Your task to perform on an android device: Go to calendar. Show me events next week Image 0: 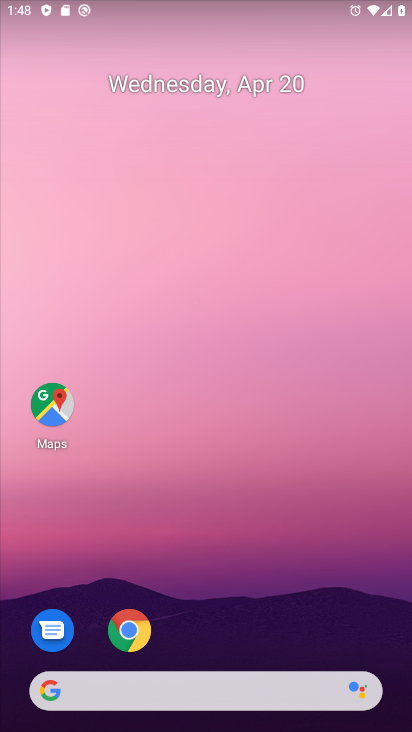
Step 0: drag from (184, 638) to (109, 86)
Your task to perform on an android device: Go to calendar. Show me events next week Image 1: 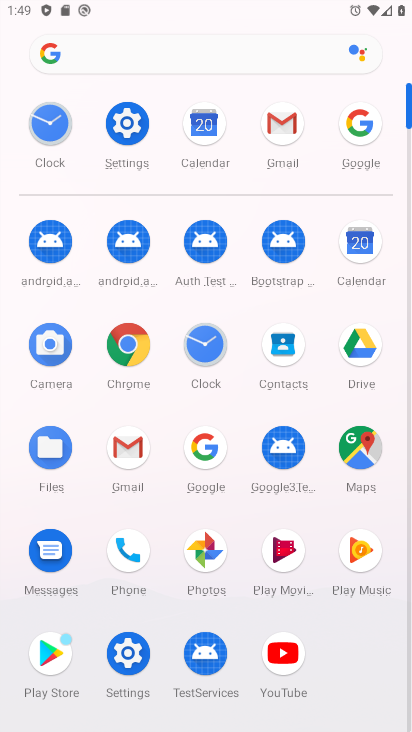
Step 1: click (364, 249)
Your task to perform on an android device: Go to calendar. Show me events next week Image 2: 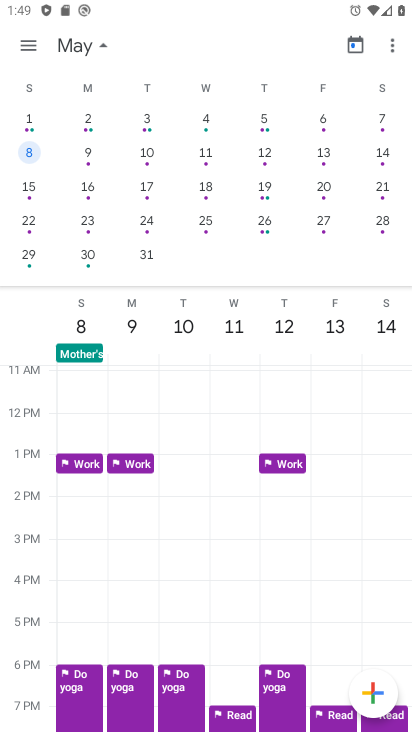
Step 2: drag from (83, 171) to (394, 217)
Your task to perform on an android device: Go to calendar. Show me events next week Image 3: 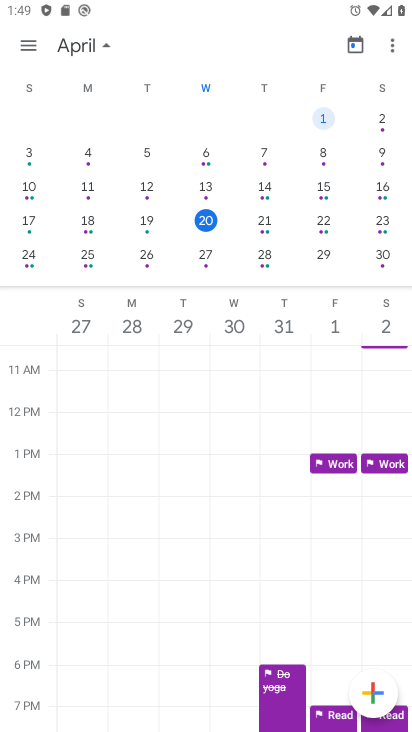
Step 3: click (378, 220)
Your task to perform on an android device: Go to calendar. Show me events next week Image 4: 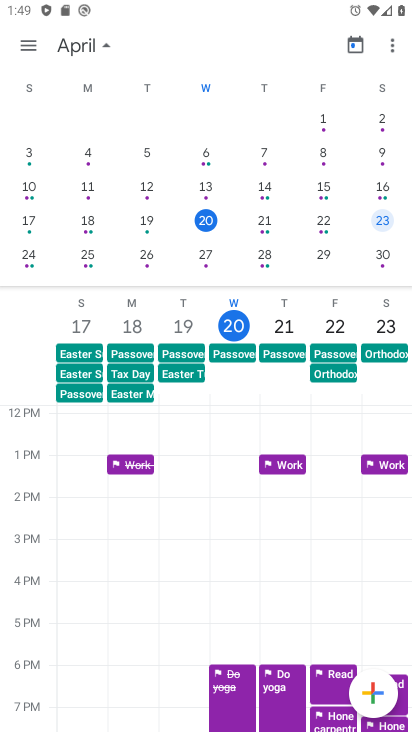
Step 4: task complete